Your task to perform on an android device: check android version Image 0: 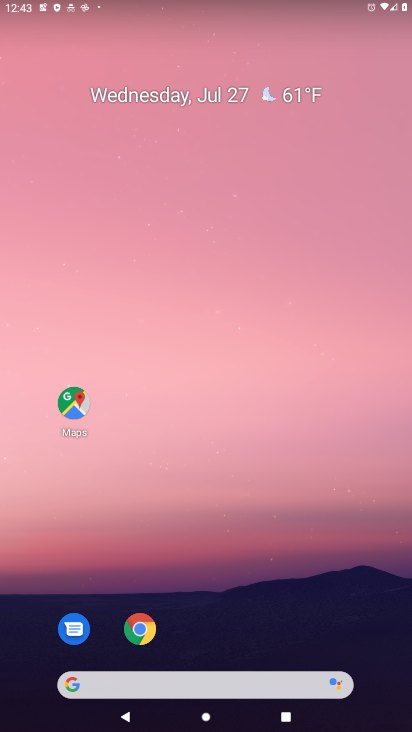
Step 0: drag from (276, 653) to (289, 137)
Your task to perform on an android device: check android version Image 1: 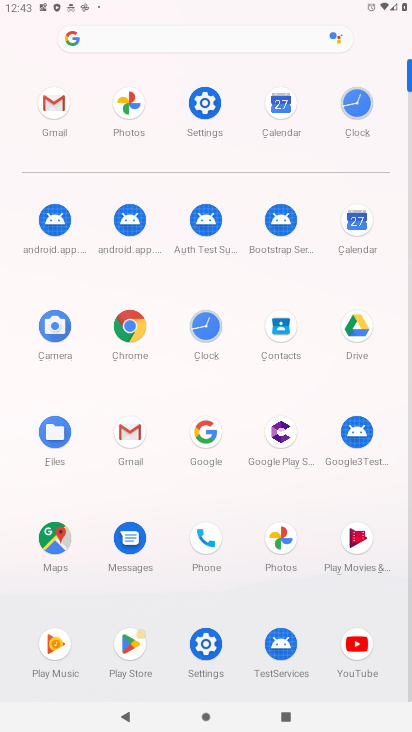
Step 1: click (207, 105)
Your task to perform on an android device: check android version Image 2: 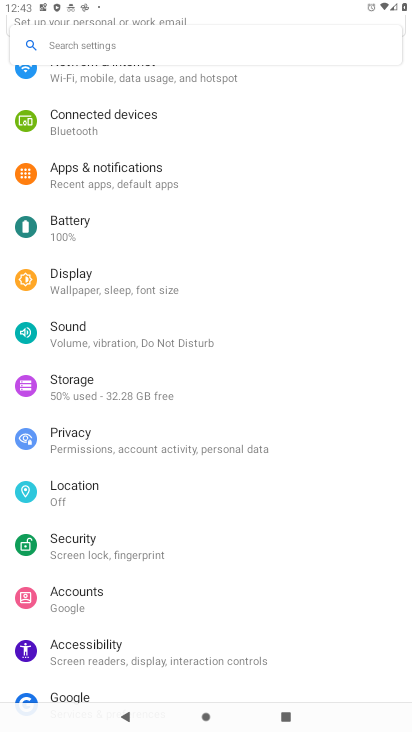
Step 2: task complete